Your task to perform on an android device: Open maps Image 0: 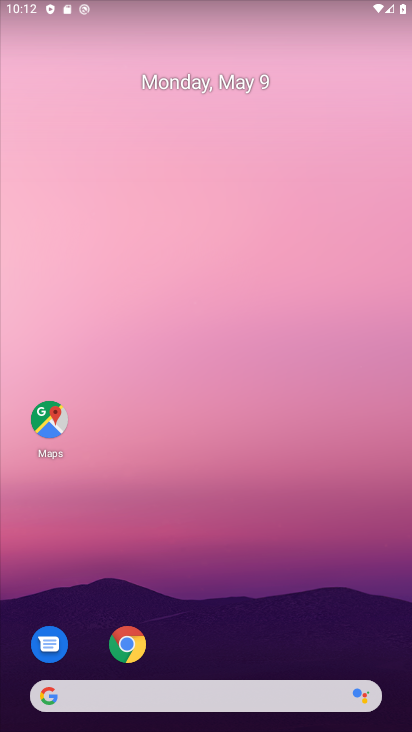
Step 0: click (62, 423)
Your task to perform on an android device: Open maps Image 1: 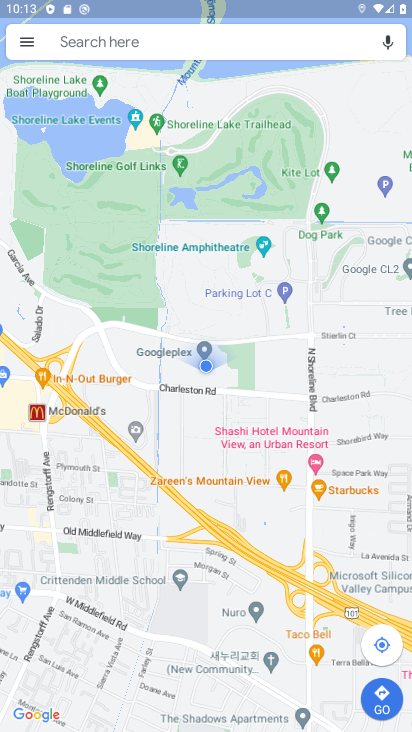
Step 1: task complete